Your task to perform on an android device: Go to Reddit.com Image 0: 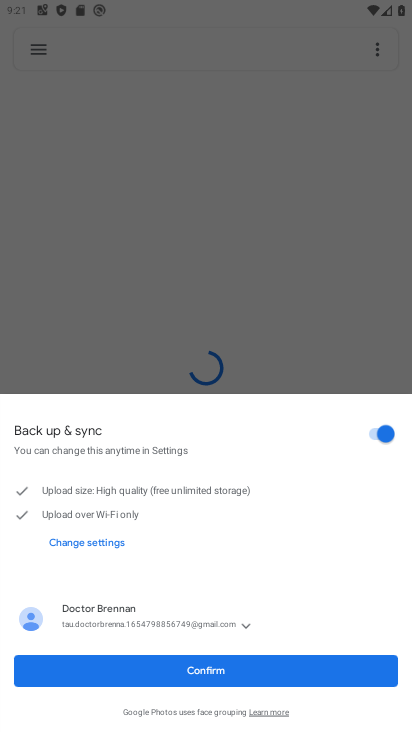
Step 0: press home button
Your task to perform on an android device: Go to Reddit.com Image 1: 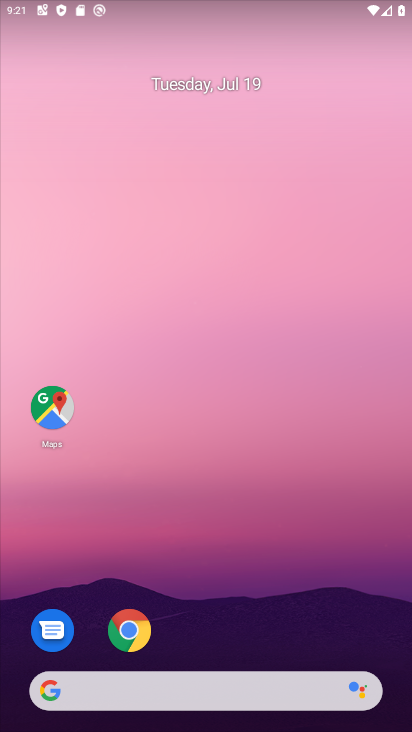
Step 1: click (135, 634)
Your task to perform on an android device: Go to Reddit.com Image 2: 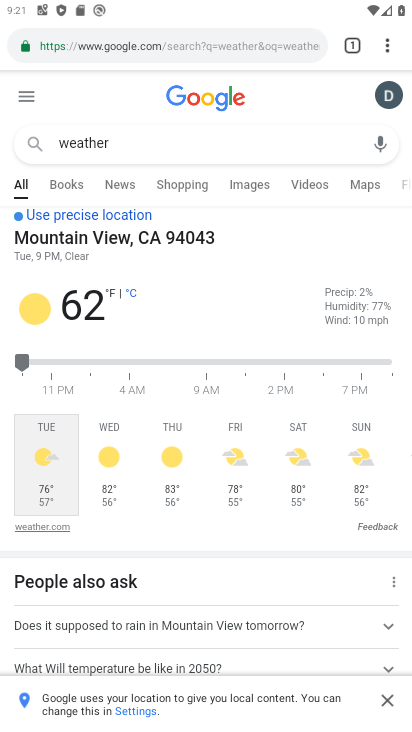
Step 2: click (199, 51)
Your task to perform on an android device: Go to Reddit.com Image 3: 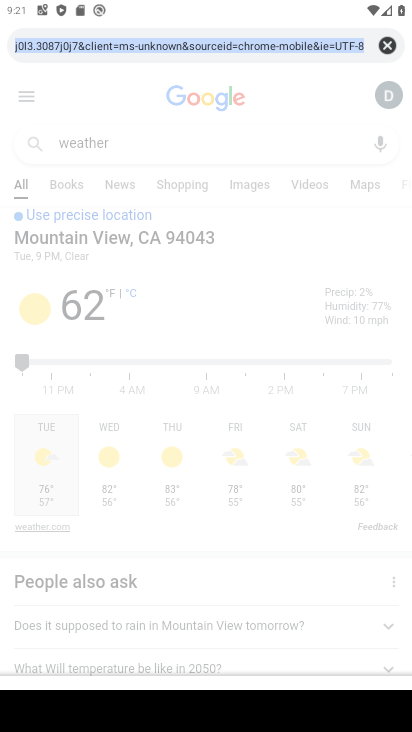
Step 3: type "reddit.com"
Your task to perform on an android device: Go to Reddit.com Image 4: 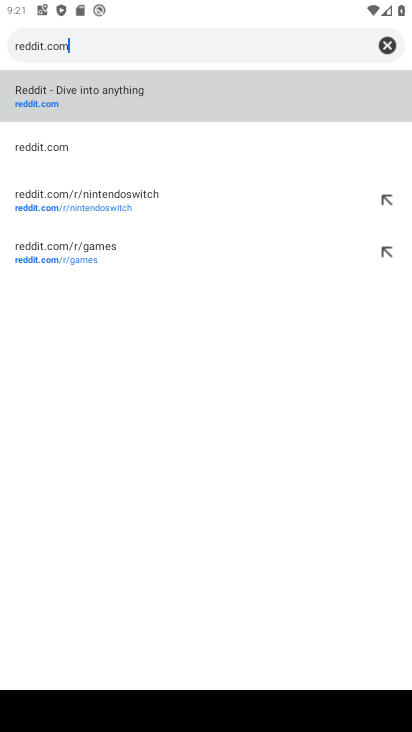
Step 4: click (189, 121)
Your task to perform on an android device: Go to Reddit.com Image 5: 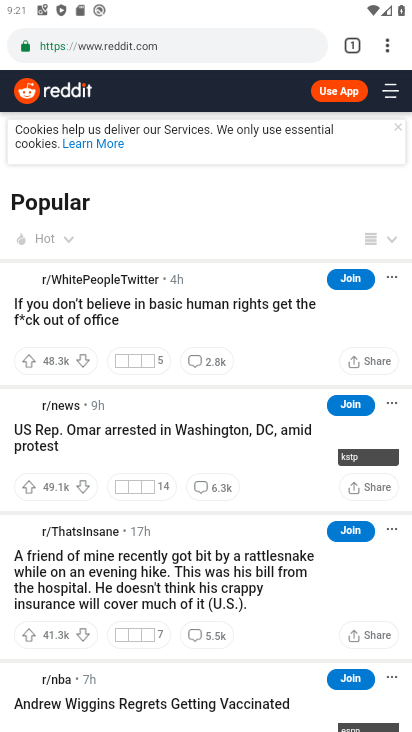
Step 5: task complete